Your task to perform on an android device: turn notification dots off Image 0: 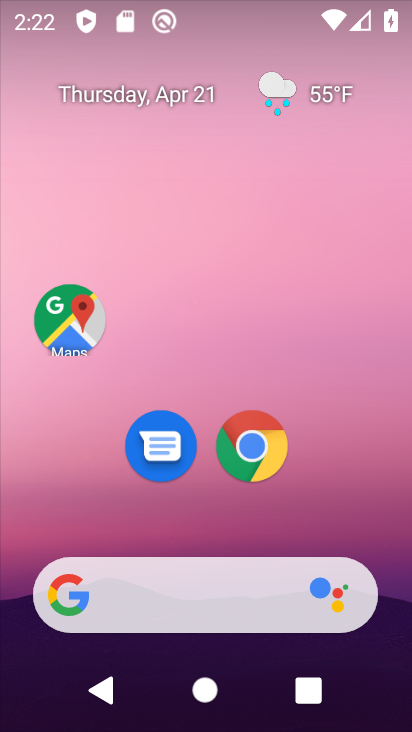
Step 0: drag from (211, 699) to (211, 46)
Your task to perform on an android device: turn notification dots off Image 1: 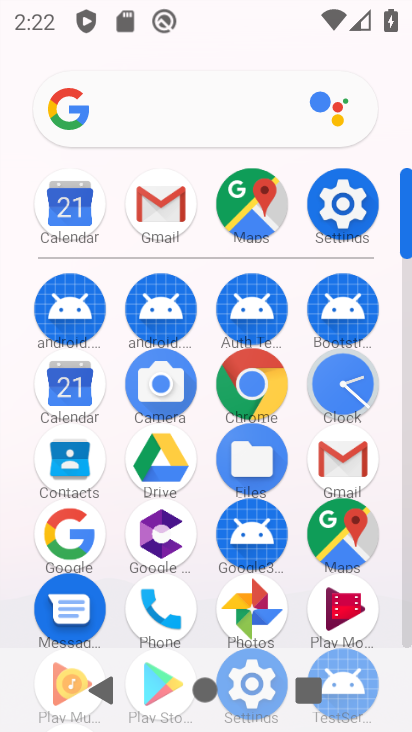
Step 1: click (341, 200)
Your task to perform on an android device: turn notification dots off Image 2: 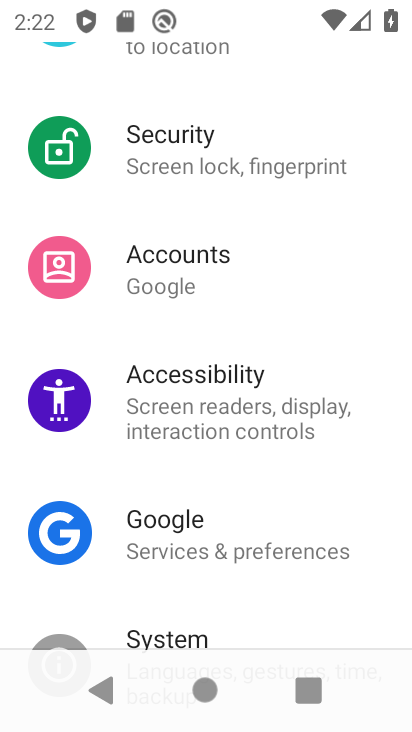
Step 2: drag from (264, 122) to (289, 520)
Your task to perform on an android device: turn notification dots off Image 3: 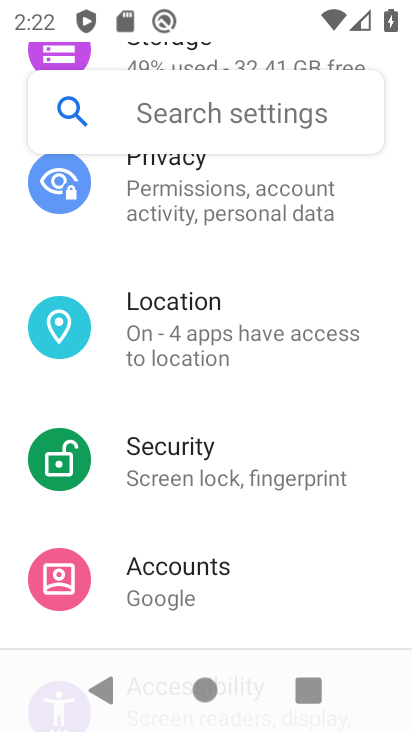
Step 3: drag from (270, 164) to (289, 552)
Your task to perform on an android device: turn notification dots off Image 4: 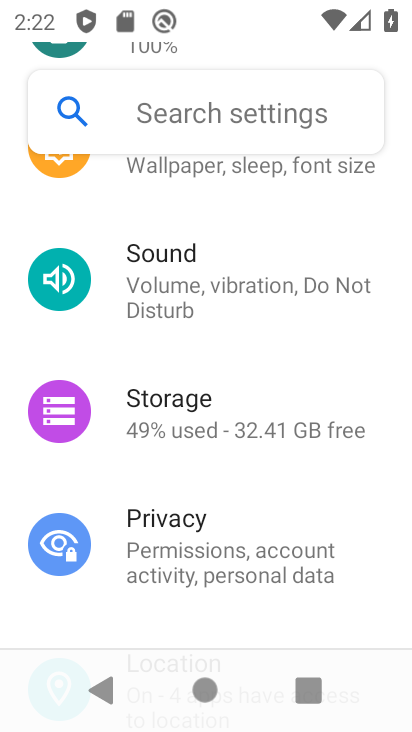
Step 4: drag from (255, 220) to (277, 554)
Your task to perform on an android device: turn notification dots off Image 5: 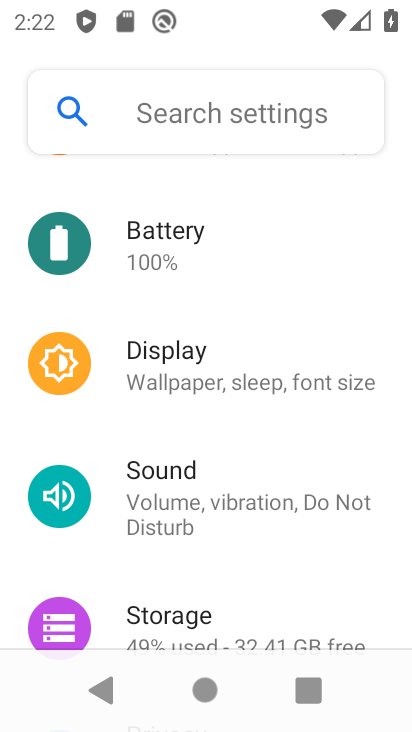
Step 5: drag from (253, 191) to (284, 540)
Your task to perform on an android device: turn notification dots off Image 6: 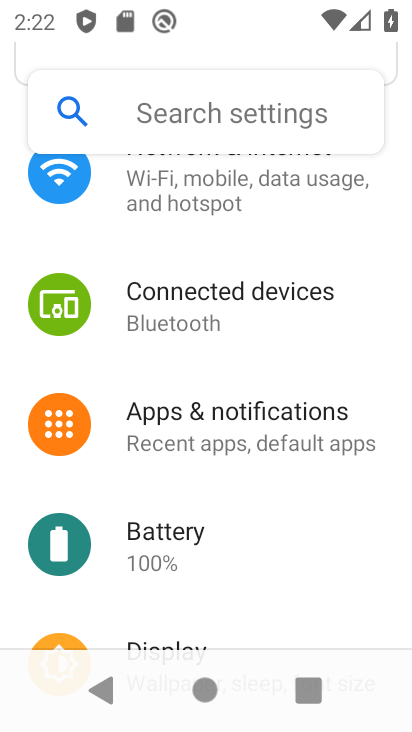
Step 6: click (251, 428)
Your task to perform on an android device: turn notification dots off Image 7: 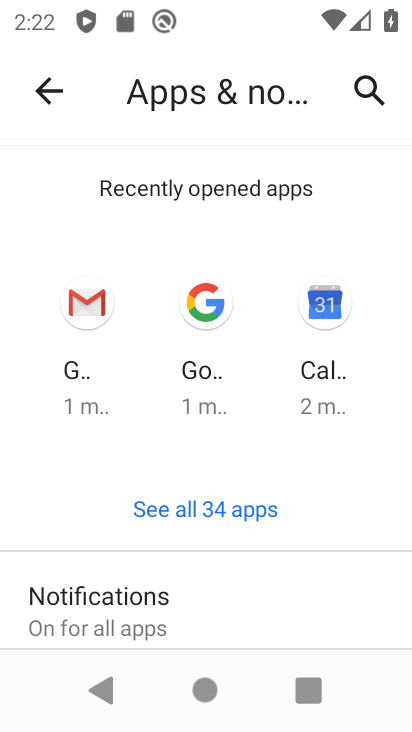
Step 7: click (124, 603)
Your task to perform on an android device: turn notification dots off Image 8: 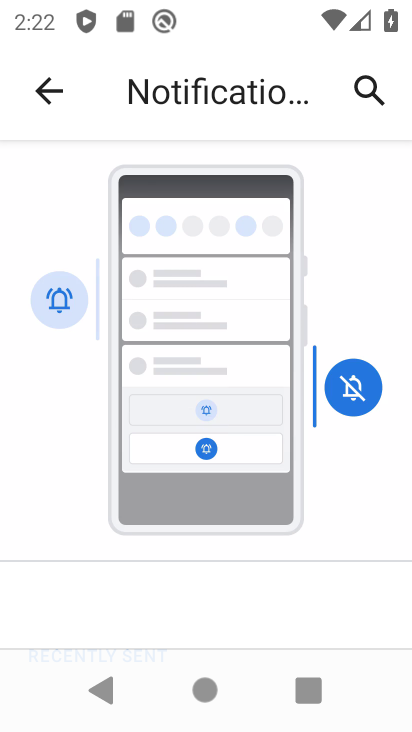
Step 8: drag from (232, 613) to (232, 149)
Your task to perform on an android device: turn notification dots off Image 9: 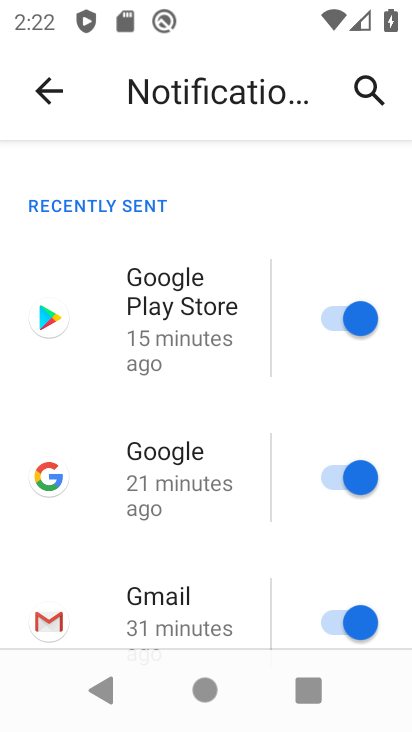
Step 9: drag from (228, 618) to (228, 172)
Your task to perform on an android device: turn notification dots off Image 10: 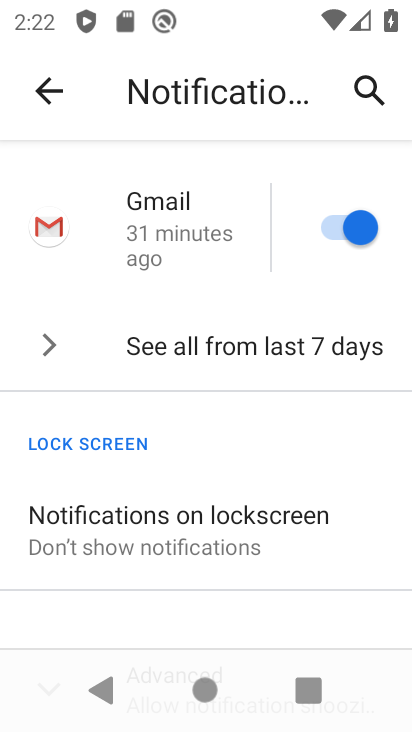
Step 10: drag from (217, 622) to (198, 246)
Your task to perform on an android device: turn notification dots off Image 11: 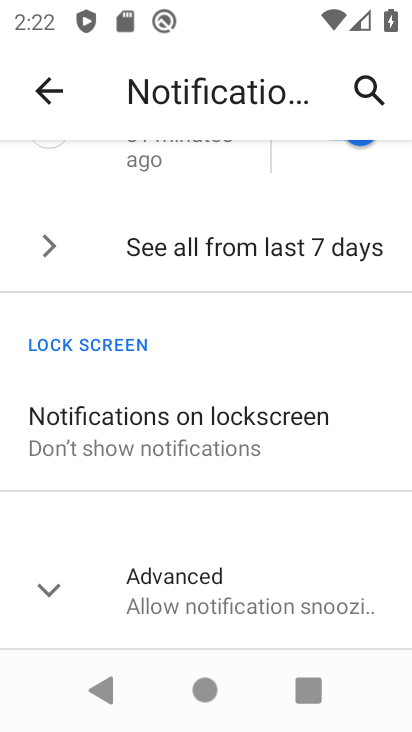
Step 11: click (189, 585)
Your task to perform on an android device: turn notification dots off Image 12: 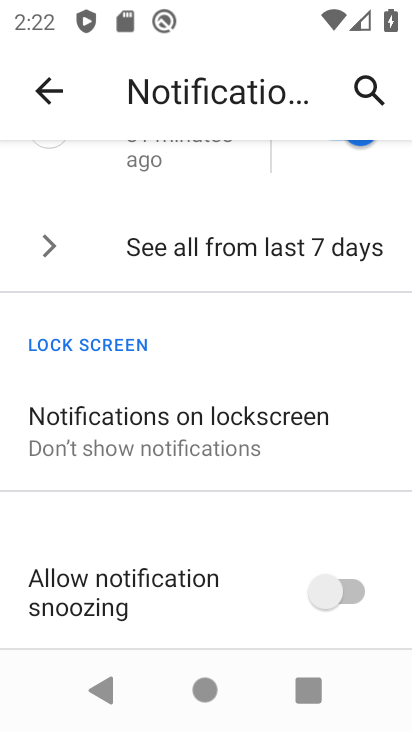
Step 12: task complete